Your task to perform on an android device: Open accessibility settings Image 0: 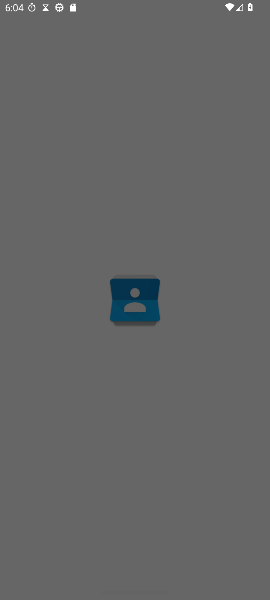
Step 0: drag from (121, 491) to (142, 33)
Your task to perform on an android device: Open accessibility settings Image 1: 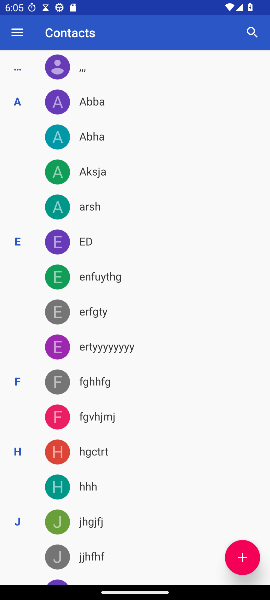
Step 1: press home button
Your task to perform on an android device: Open accessibility settings Image 2: 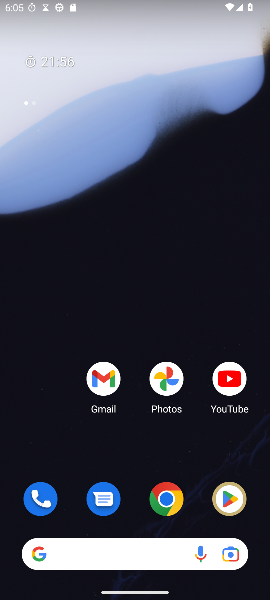
Step 2: drag from (169, 547) to (225, 86)
Your task to perform on an android device: Open accessibility settings Image 3: 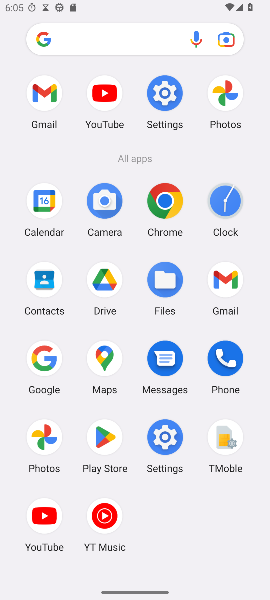
Step 3: click (156, 95)
Your task to perform on an android device: Open accessibility settings Image 4: 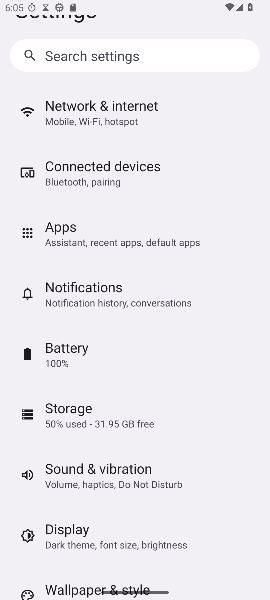
Step 4: drag from (139, 537) to (209, 139)
Your task to perform on an android device: Open accessibility settings Image 5: 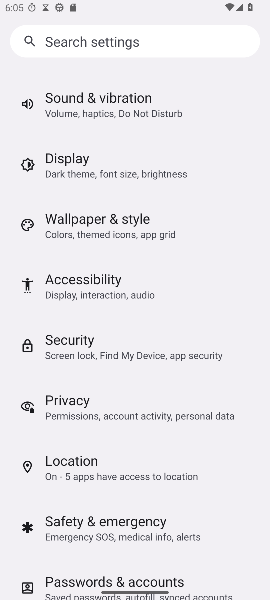
Step 5: click (96, 289)
Your task to perform on an android device: Open accessibility settings Image 6: 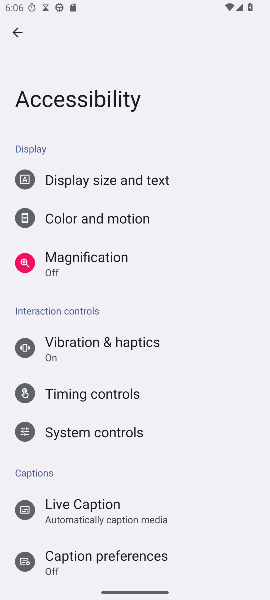
Step 6: task complete